Your task to perform on an android device: add a contact in the contacts app Image 0: 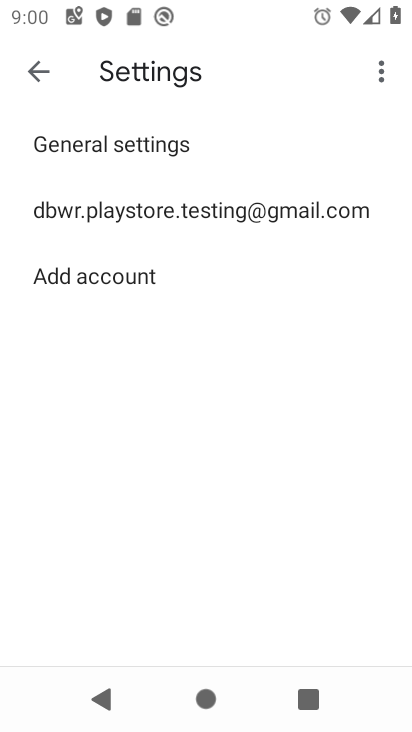
Step 0: press home button
Your task to perform on an android device: add a contact in the contacts app Image 1: 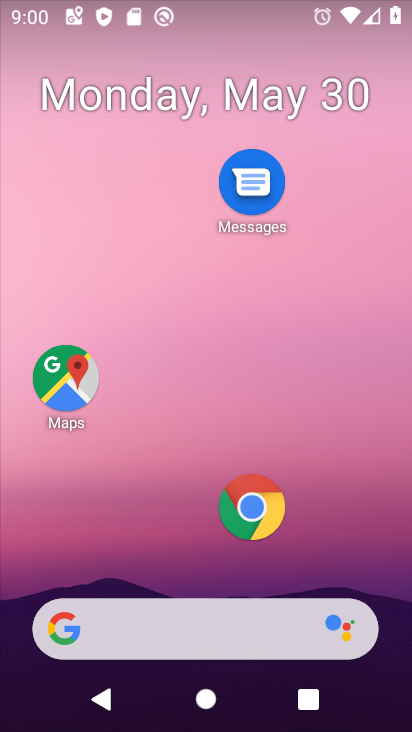
Step 1: click (290, 173)
Your task to perform on an android device: add a contact in the contacts app Image 2: 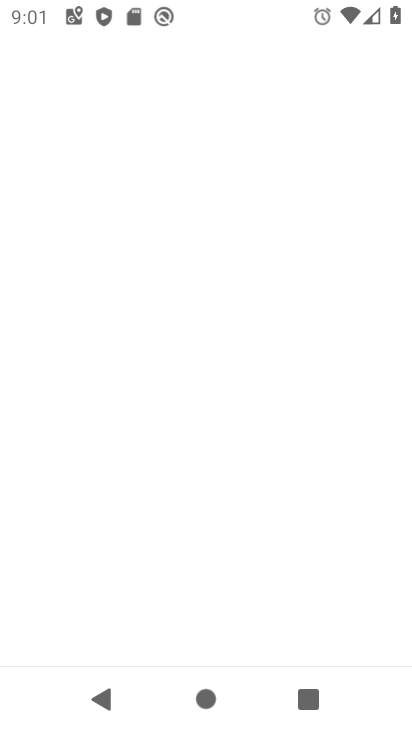
Step 2: press home button
Your task to perform on an android device: add a contact in the contacts app Image 3: 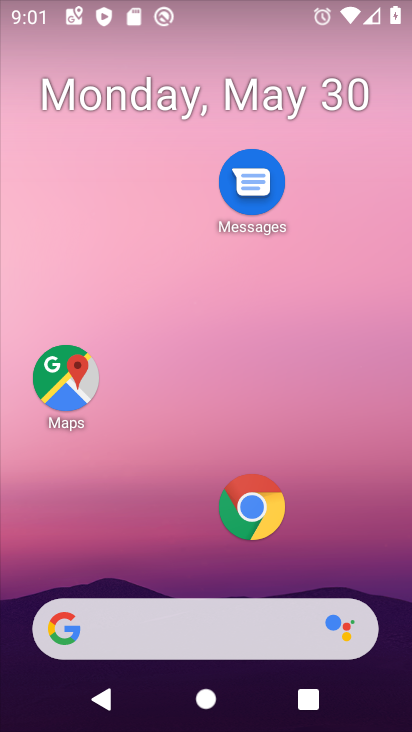
Step 3: drag from (205, 560) to (206, 121)
Your task to perform on an android device: add a contact in the contacts app Image 4: 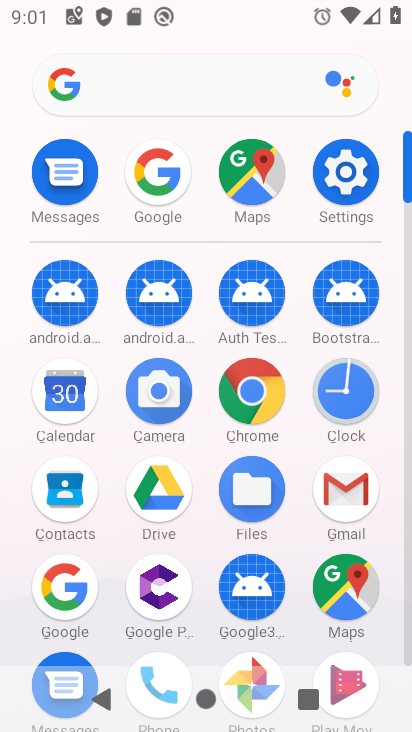
Step 4: drag from (203, 591) to (104, 331)
Your task to perform on an android device: add a contact in the contacts app Image 5: 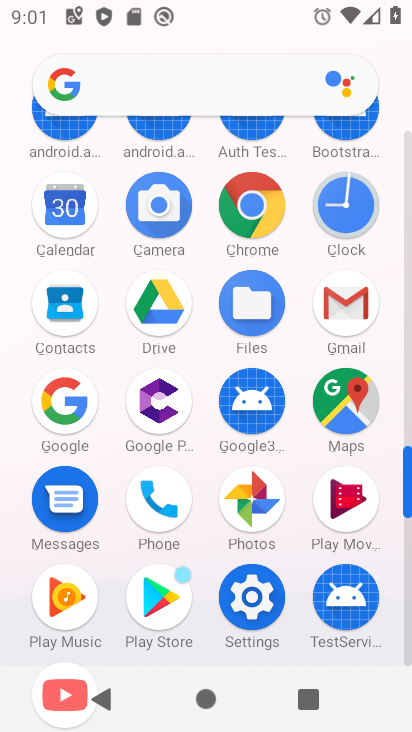
Step 5: click (70, 323)
Your task to perform on an android device: add a contact in the contacts app Image 6: 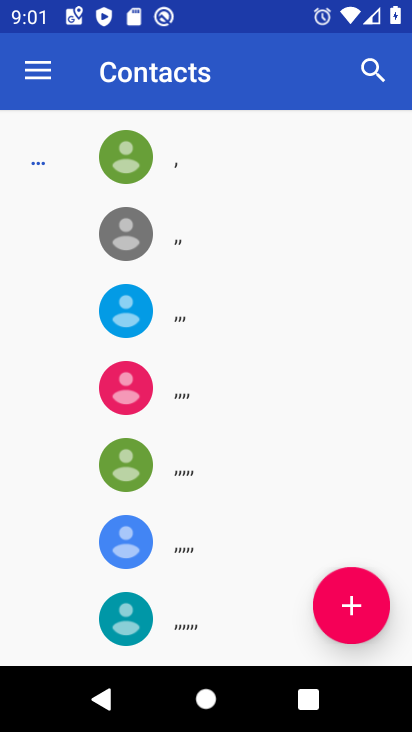
Step 6: click (343, 623)
Your task to perform on an android device: add a contact in the contacts app Image 7: 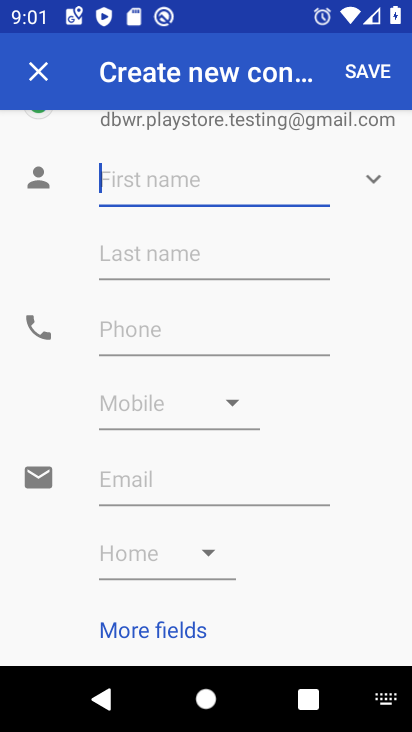
Step 7: click (190, 195)
Your task to perform on an android device: add a contact in the contacts app Image 8: 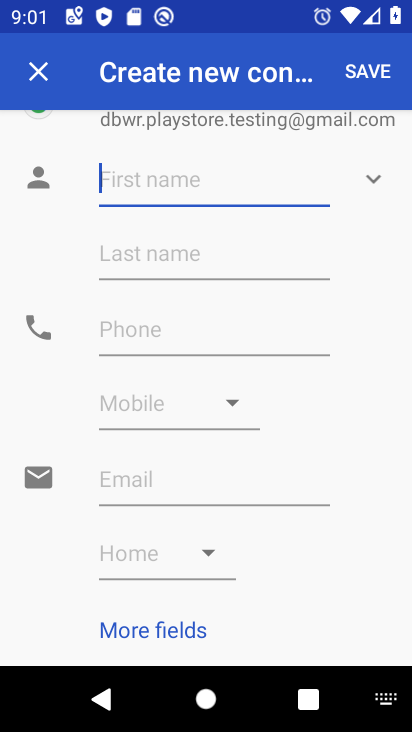
Step 8: type "Vasu"
Your task to perform on an android device: add a contact in the contacts app Image 9: 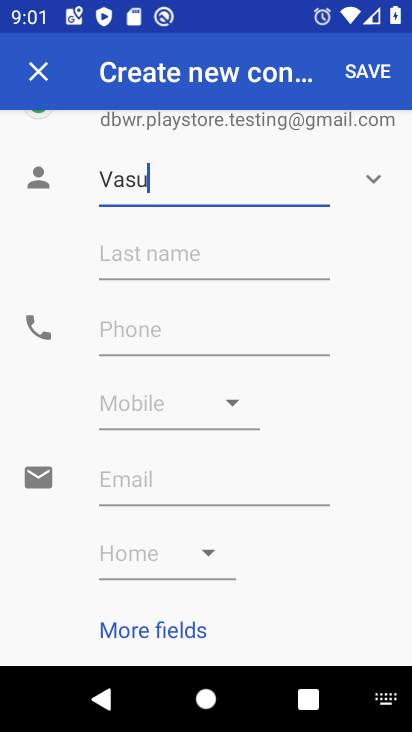
Step 9: click (259, 267)
Your task to perform on an android device: add a contact in the contacts app Image 10: 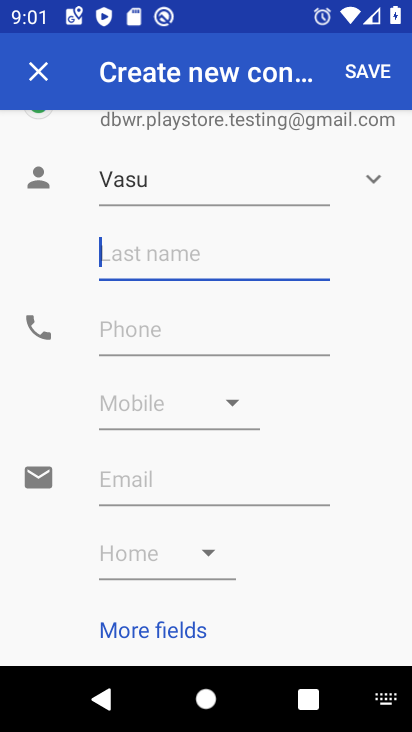
Step 10: type "Puri"
Your task to perform on an android device: add a contact in the contacts app Image 11: 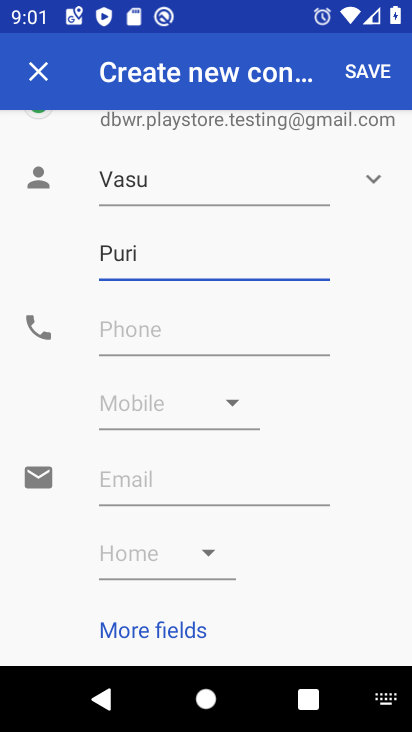
Step 11: click (228, 332)
Your task to perform on an android device: add a contact in the contacts app Image 12: 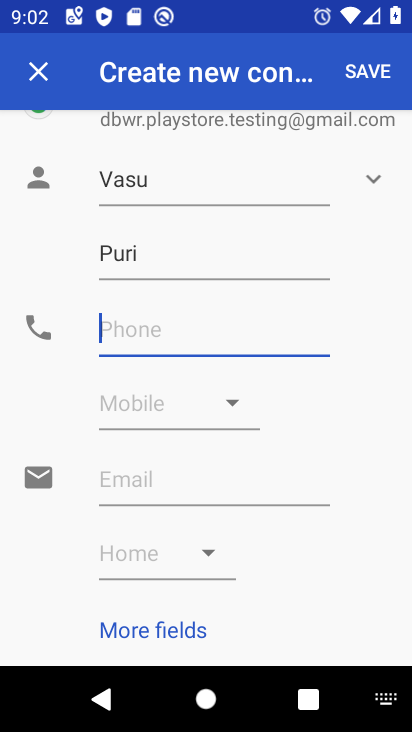
Step 12: type "01123324554"
Your task to perform on an android device: add a contact in the contacts app Image 13: 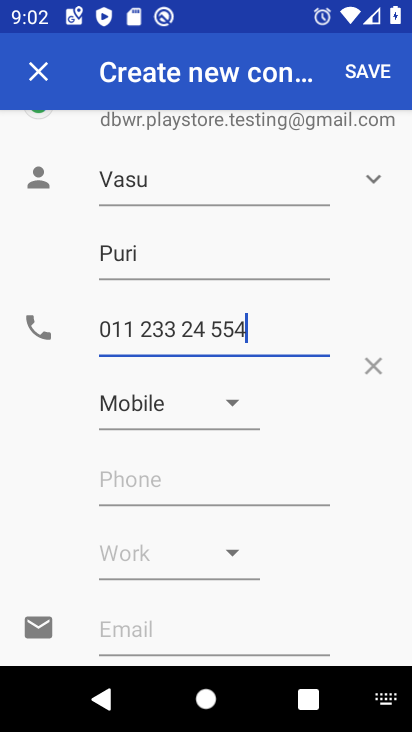
Step 13: click (370, 64)
Your task to perform on an android device: add a contact in the contacts app Image 14: 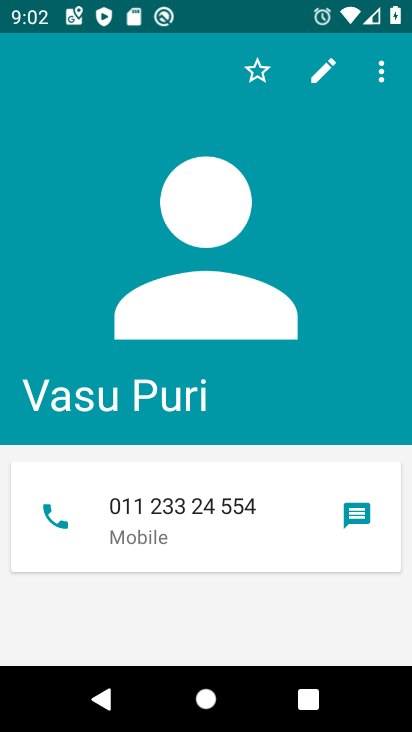
Step 14: task complete